Your task to perform on an android device: toggle wifi Image 0: 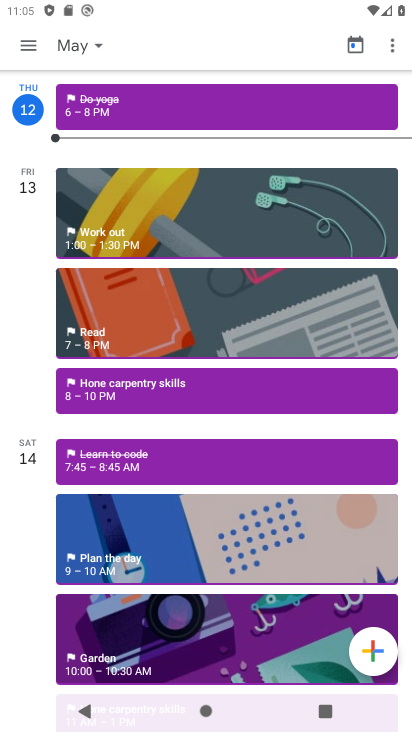
Step 0: press home button
Your task to perform on an android device: toggle wifi Image 1: 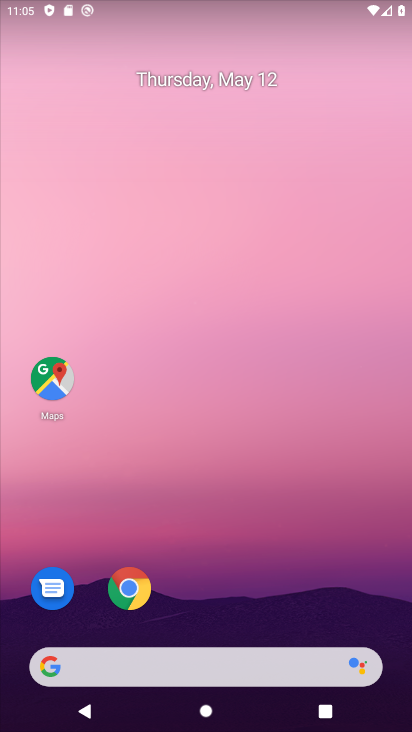
Step 1: drag from (375, 504) to (376, 159)
Your task to perform on an android device: toggle wifi Image 2: 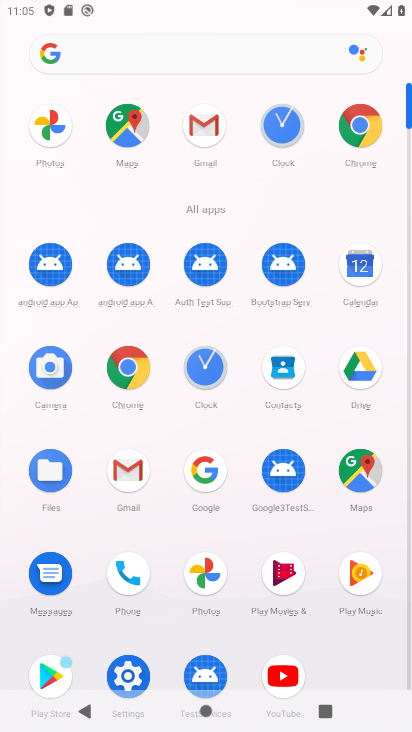
Step 2: click (136, 674)
Your task to perform on an android device: toggle wifi Image 3: 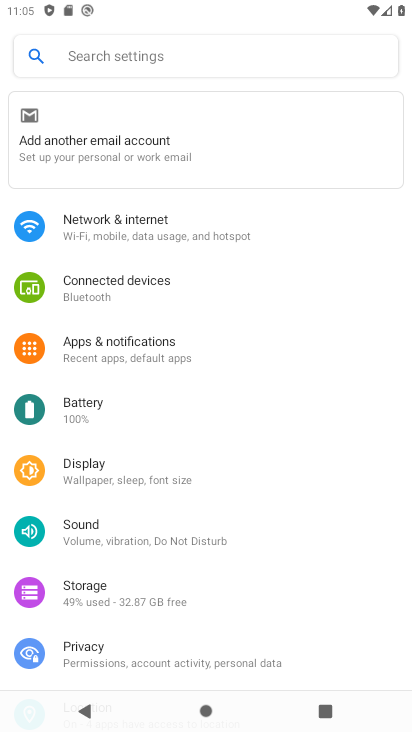
Step 3: click (161, 230)
Your task to perform on an android device: toggle wifi Image 4: 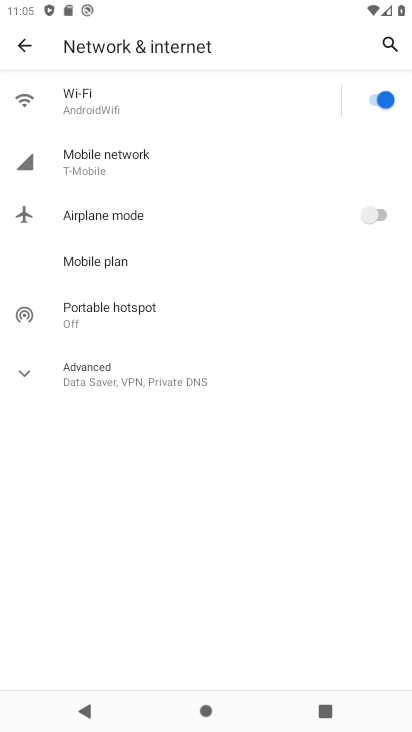
Step 4: click (387, 91)
Your task to perform on an android device: toggle wifi Image 5: 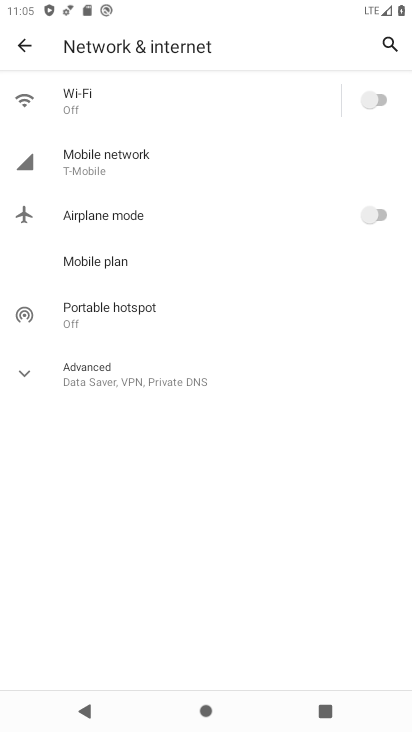
Step 5: task complete